Your task to perform on an android device: Open settings on Google Maps Image 0: 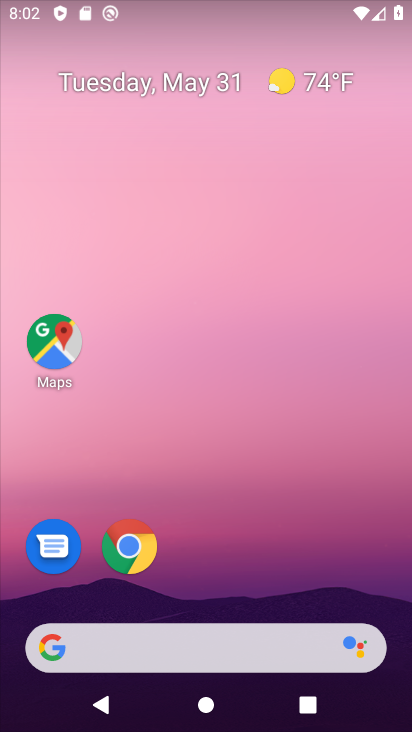
Step 0: click (59, 346)
Your task to perform on an android device: Open settings on Google Maps Image 1: 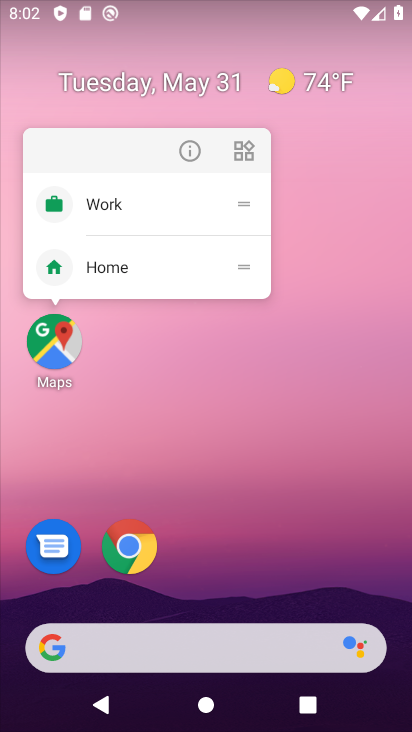
Step 1: click (66, 346)
Your task to perform on an android device: Open settings on Google Maps Image 2: 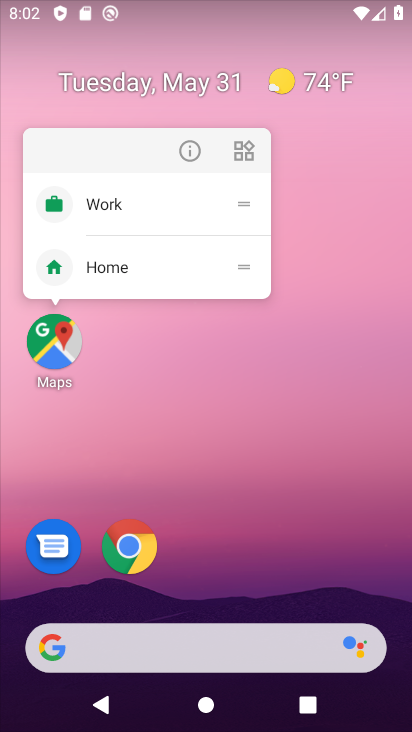
Step 2: click (66, 346)
Your task to perform on an android device: Open settings on Google Maps Image 3: 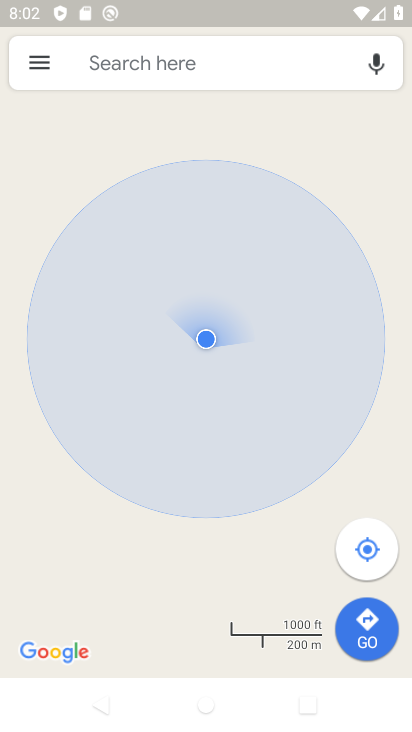
Step 3: click (46, 70)
Your task to perform on an android device: Open settings on Google Maps Image 4: 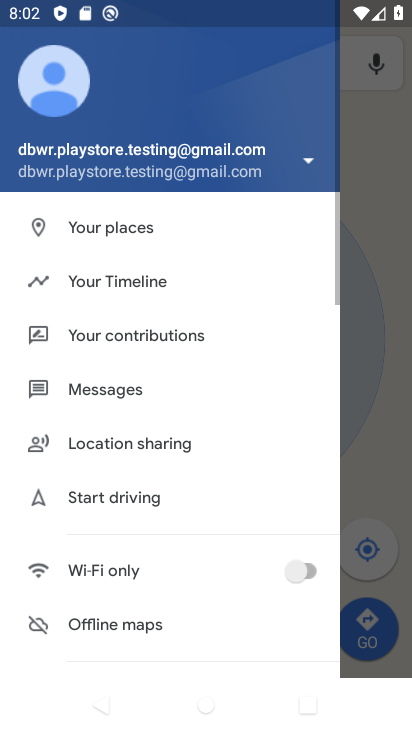
Step 4: drag from (120, 530) to (190, 150)
Your task to perform on an android device: Open settings on Google Maps Image 5: 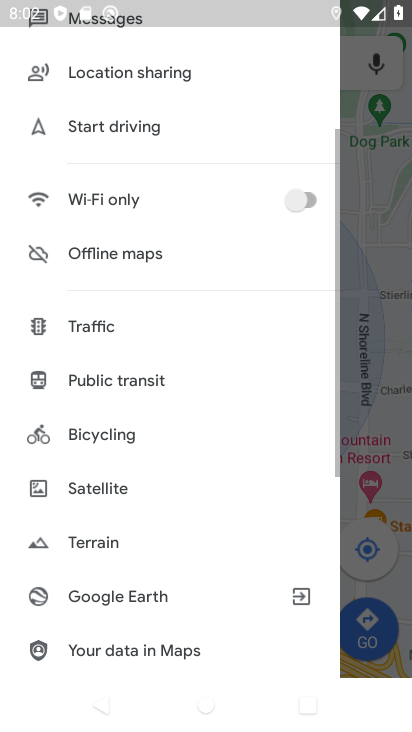
Step 5: drag from (152, 610) to (171, 240)
Your task to perform on an android device: Open settings on Google Maps Image 6: 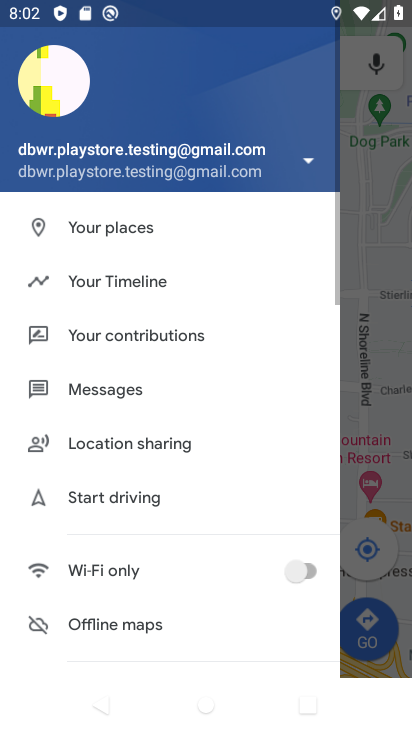
Step 6: drag from (131, 566) to (125, 251)
Your task to perform on an android device: Open settings on Google Maps Image 7: 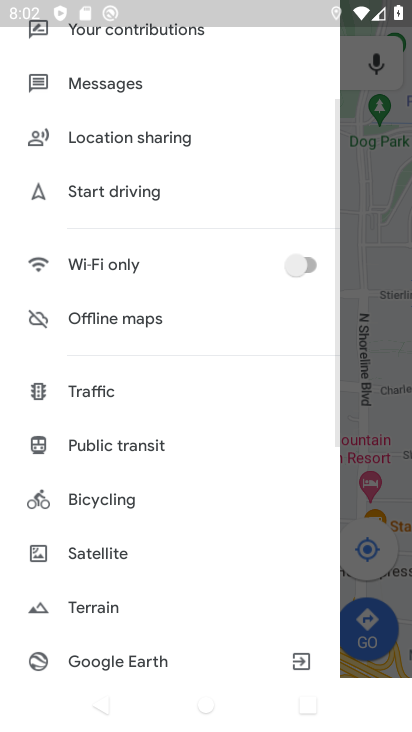
Step 7: drag from (186, 625) to (175, 316)
Your task to perform on an android device: Open settings on Google Maps Image 8: 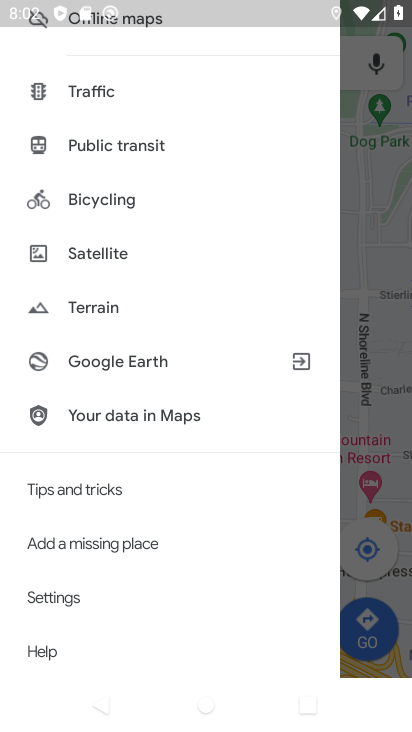
Step 8: click (77, 614)
Your task to perform on an android device: Open settings on Google Maps Image 9: 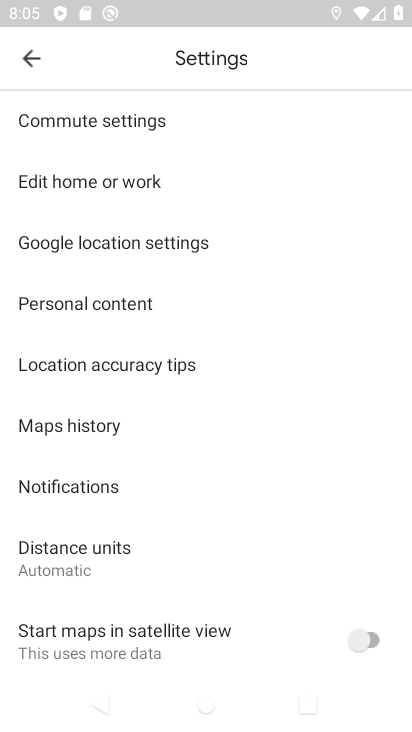
Step 9: task complete